Your task to perform on an android device: Go to internet settings Image 0: 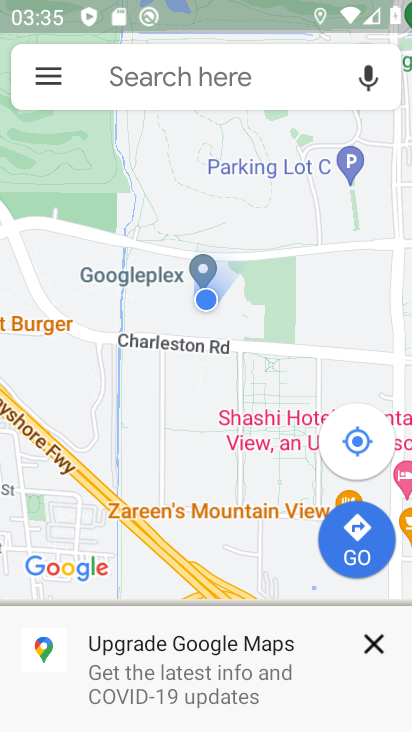
Step 0: press home button
Your task to perform on an android device: Go to internet settings Image 1: 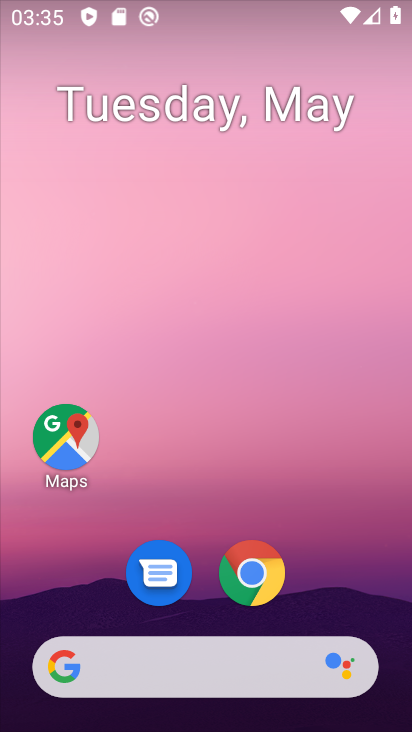
Step 1: drag from (207, 561) to (242, 50)
Your task to perform on an android device: Go to internet settings Image 2: 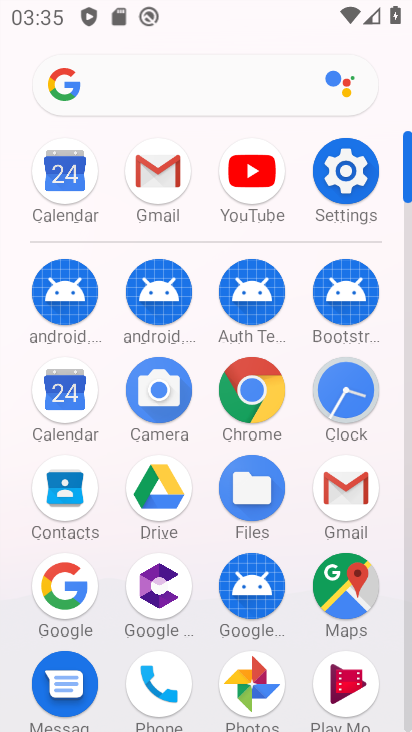
Step 2: click (342, 170)
Your task to perform on an android device: Go to internet settings Image 3: 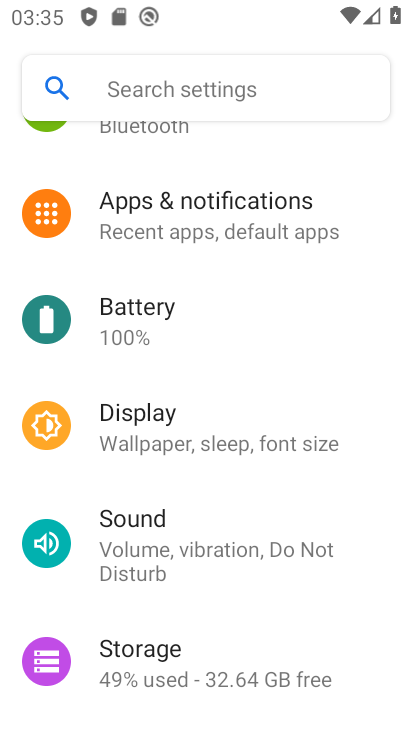
Step 3: drag from (218, 185) to (222, 485)
Your task to perform on an android device: Go to internet settings Image 4: 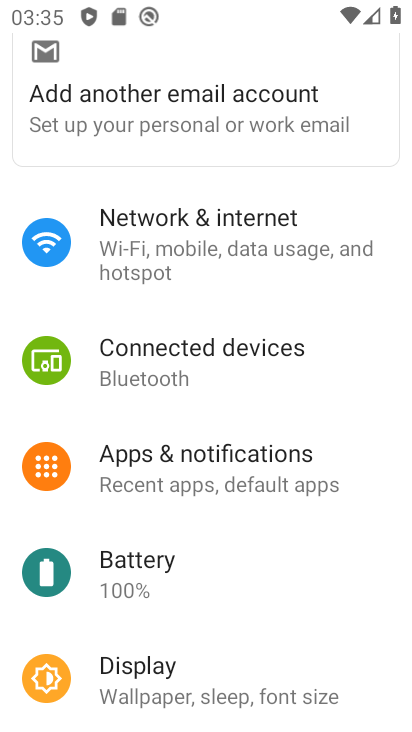
Step 4: click (167, 226)
Your task to perform on an android device: Go to internet settings Image 5: 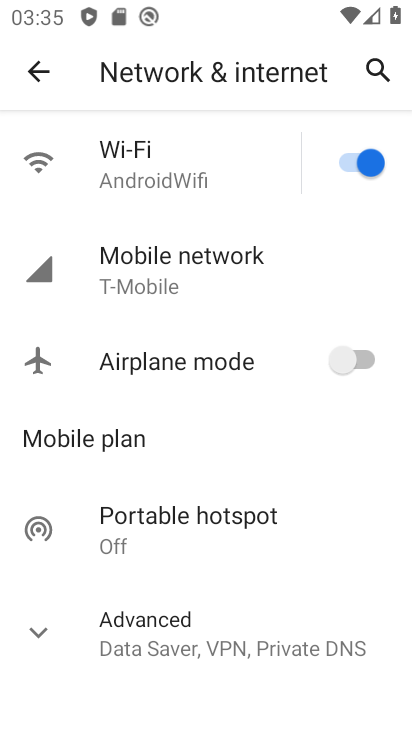
Step 5: task complete